Your task to perform on an android device: check out phone information Image 0: 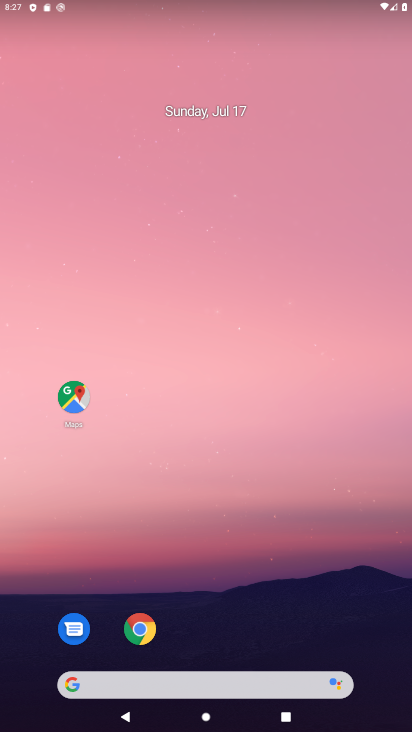
Step 0: press home button
Your task to perform on an android device: check out phone information Image 1: 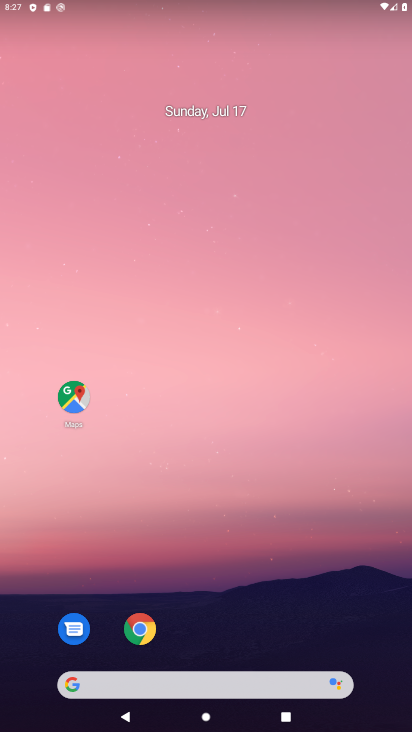
Step 1: drag from (202, 647) to (213, 0)
Your task to perform on an android device: check out phone information Image 2: 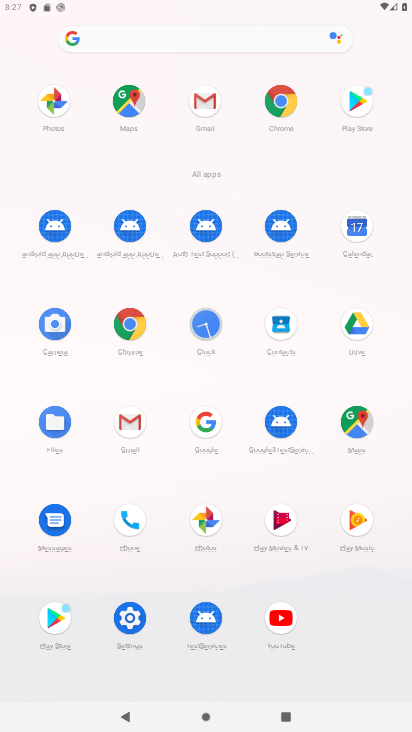
Step 2: click (127, 614)
Your task to perform on an android device: check out phone information Image 3: 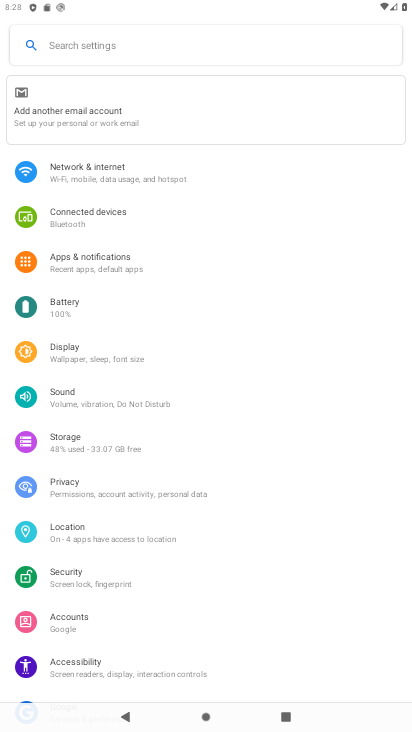
Step 3: drag from (144, 653) to (190, 120)
Your task to perform on an android device: check out phone information Image 4: 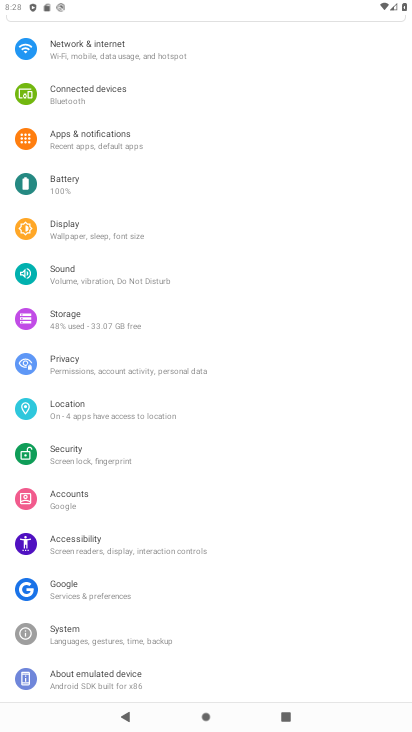
Step 4: click (160, 683)
Your task to perform on an android device: check out phone information Image 5: 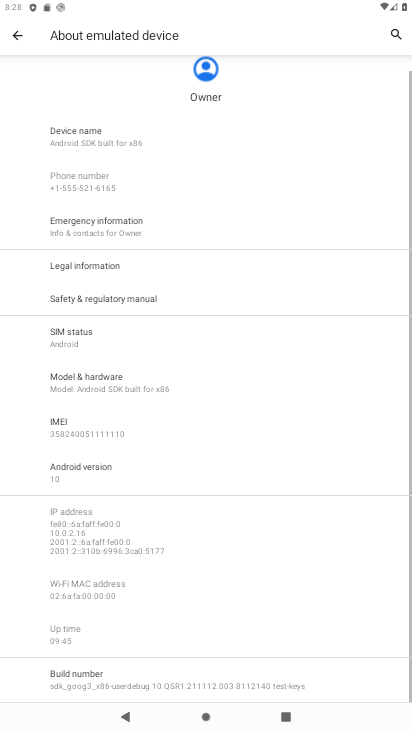
Step 5: task complete